Your task to perform on an android device: Turn on the flashlight Image 0: 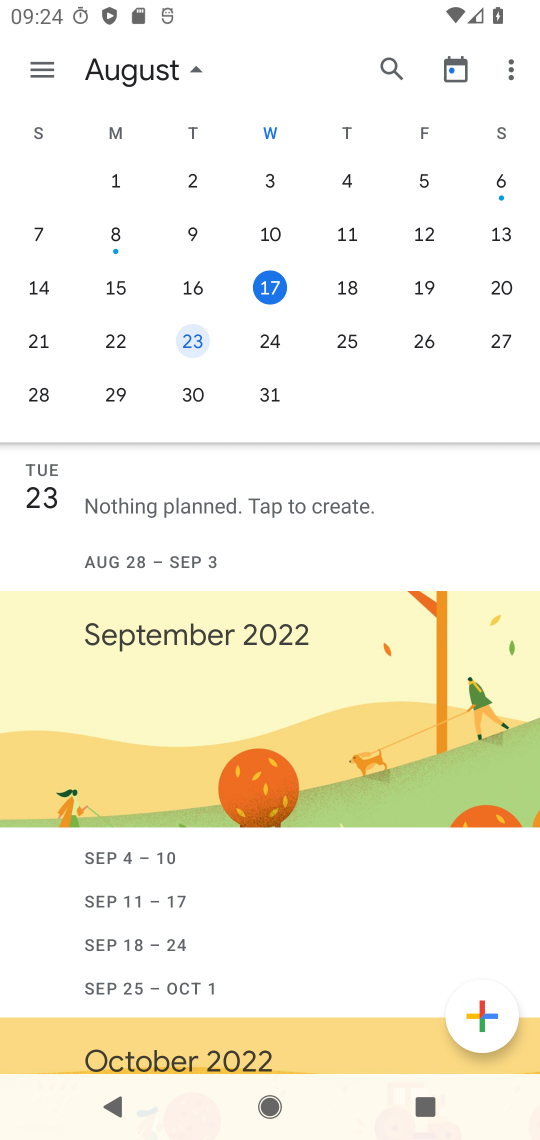
Step 0: press home button
Your task to perform on an android device: Turn on the flashlight Image 1: 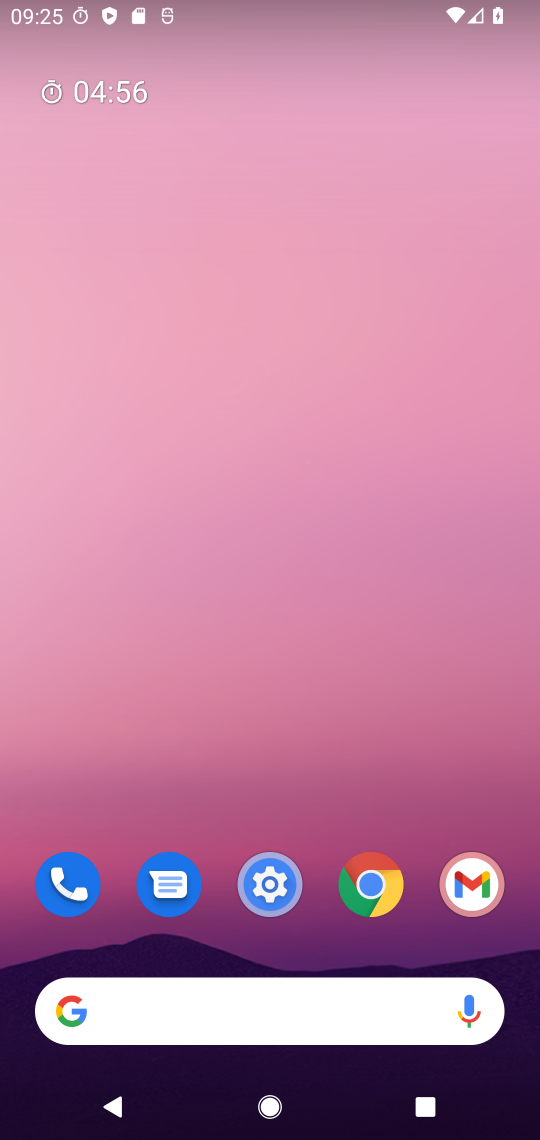
Step 1: click (260, 868)
Your task to perform on an android device: Turn on the flashlight Image 2: 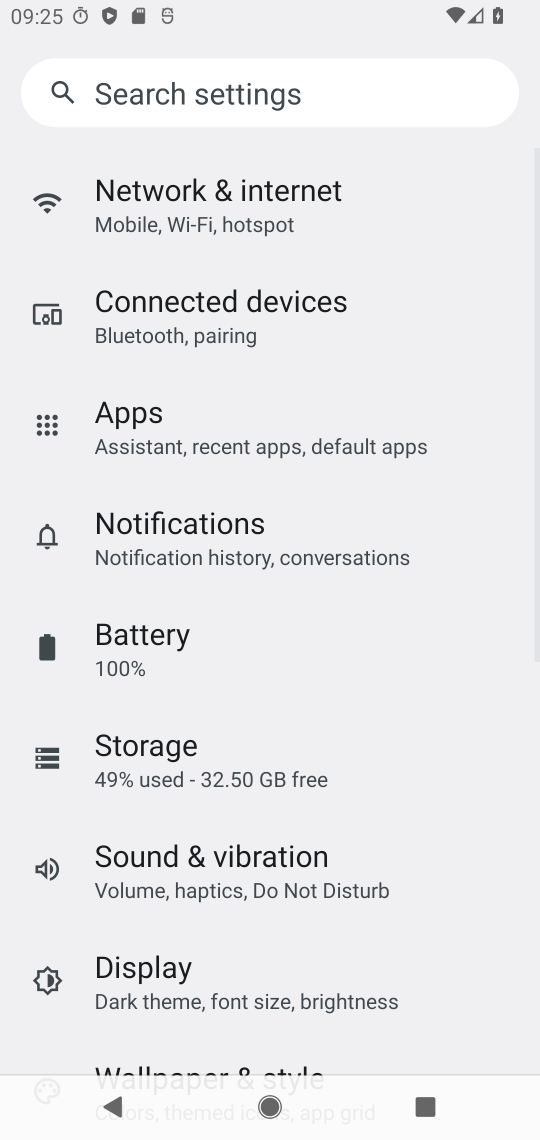
Step 2: task complete